Your task to perform on an android device: Open location settings Image 0: 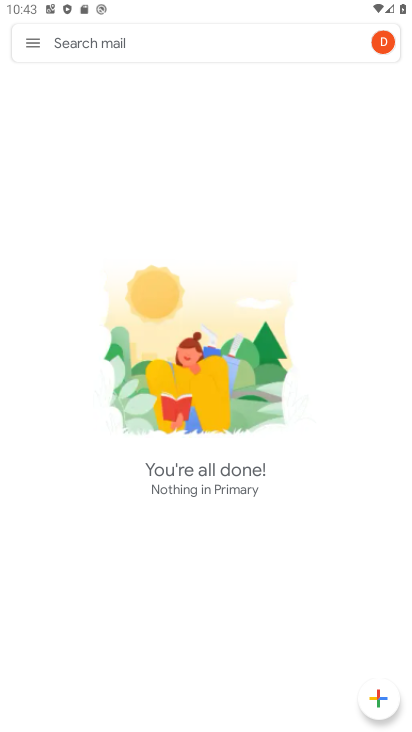
Step 0: press home button
Your task to perform on an android device: Open location settings Image 1: 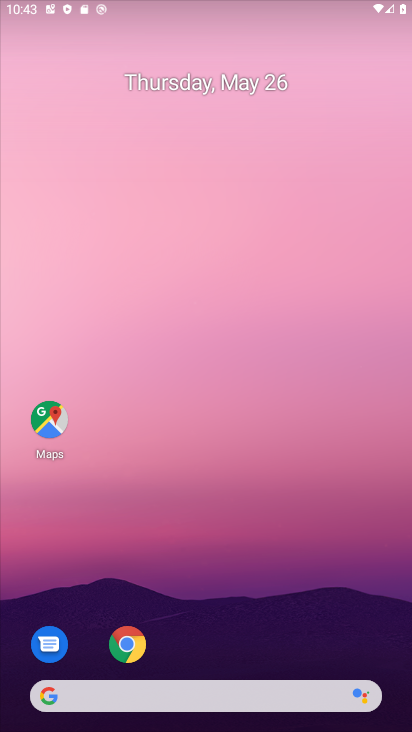
Step 1: drag from (352, 642) to (286, 116)
Your task to perform on an android device: Open location settings Image 2: 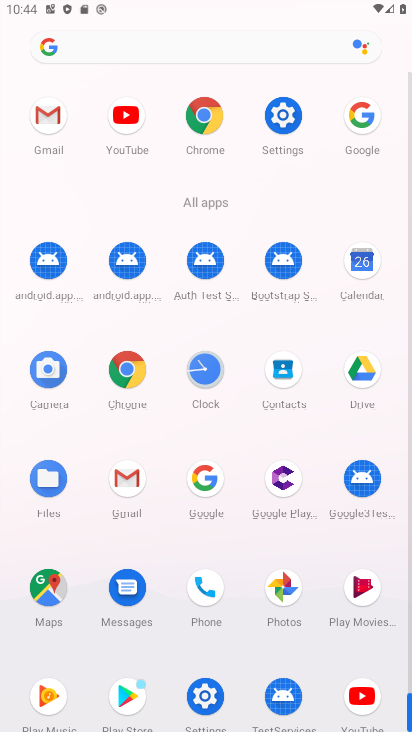
Step 2: click (218, 700)
Your task to perform on an android device: Open location settings Image 3: 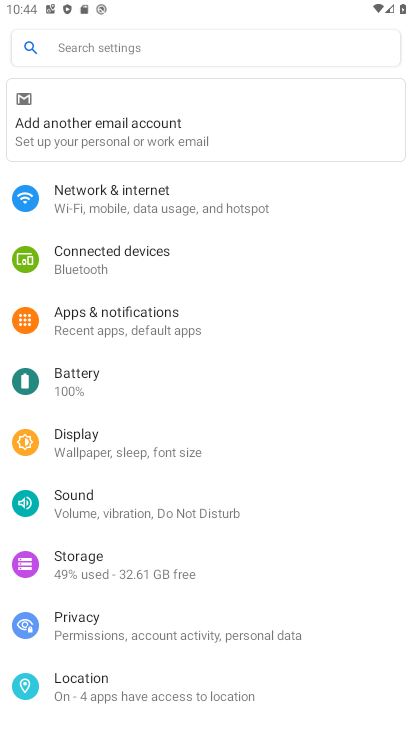
Step 3: click (109, 676)
Your task to perform on an android device: Open location settings Image 4: 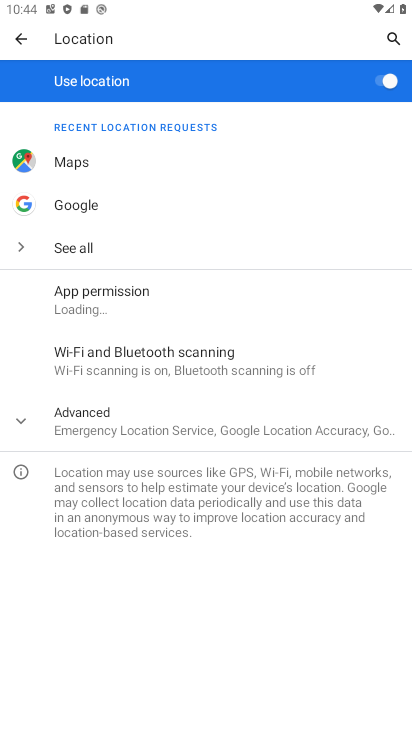
Step 4: task complete